Your task to perform on an android device: Is it going to rain tomorrow? Image 0: 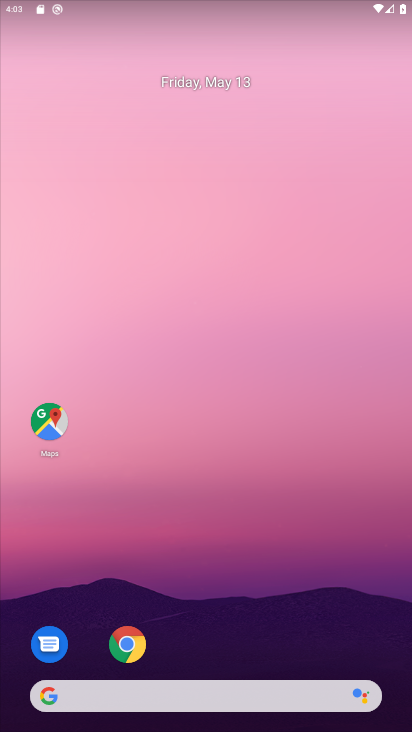
Step 0: drag from (241, 579) to (298, 63)
Your task to perform on an android device: Is it going to rain tomorrow? Image 1: 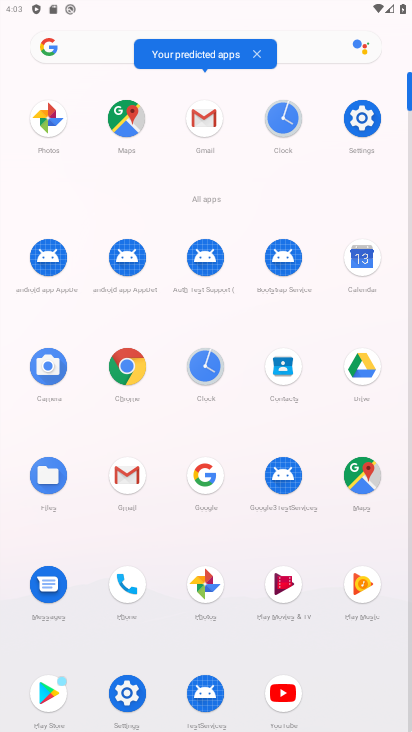
Step 1: click (64, 52)
Your task to perform on an android device: Is it going to rain tomorrow? Image 2: 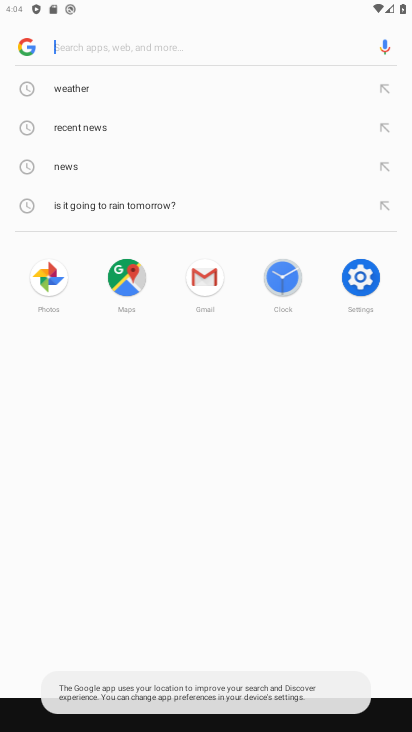
Step 2: click (70, 83)
Your task to perform on an android device: Is it going to rain tomorrow? Image 3: 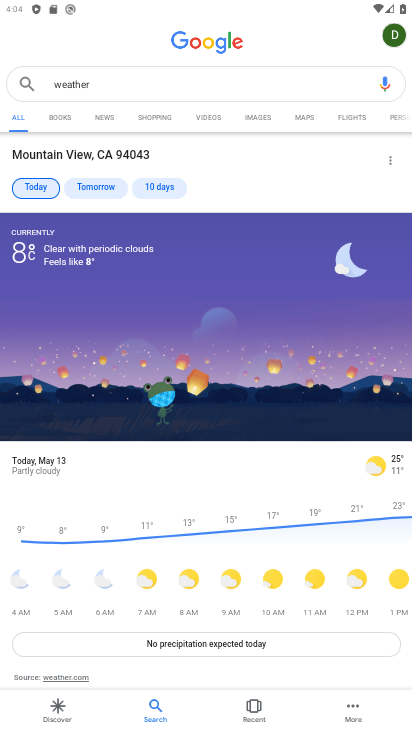
Step 3: click (88, 182)
Your task to perform on an android device: Is it going to rain tomorrow? Image 4: 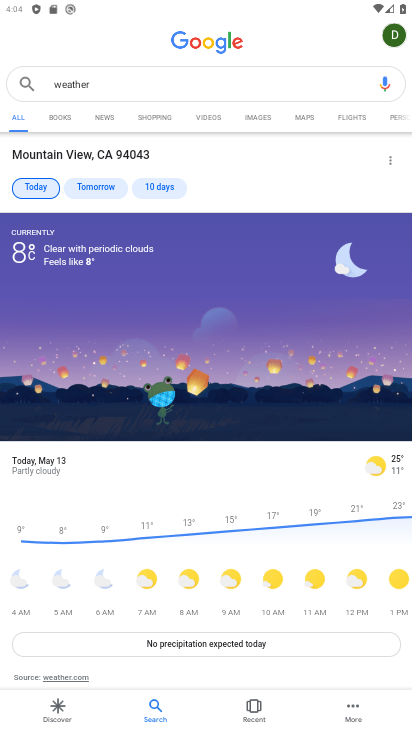
Step 4: click (94, 190)
Your task to perform on an android device: Is it going to rain tomorrow? Image 5: 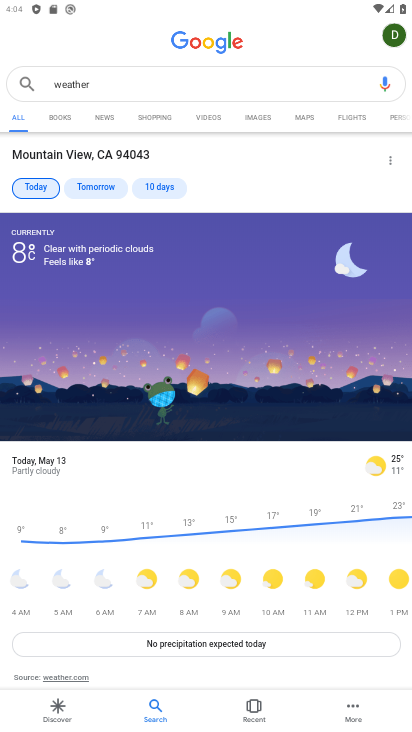
Step 5: click (94, 189)
Your task to perform on an android device: Is it going to rain tomorrow? Image 6: 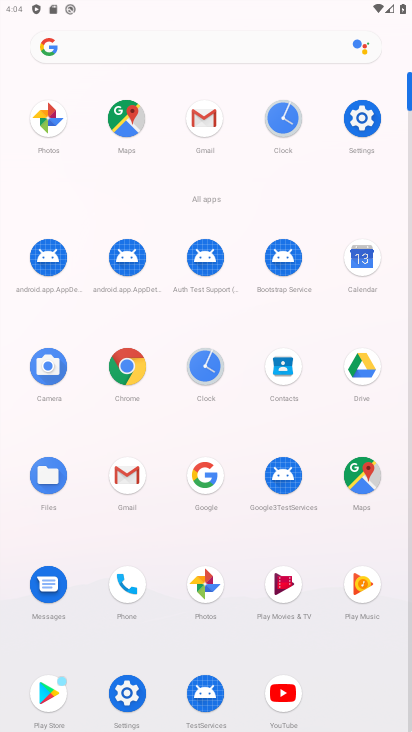
Step 6: click (168, 53)
Your task to perform on an android device: Is it going to rain tomorrow? Image 7: 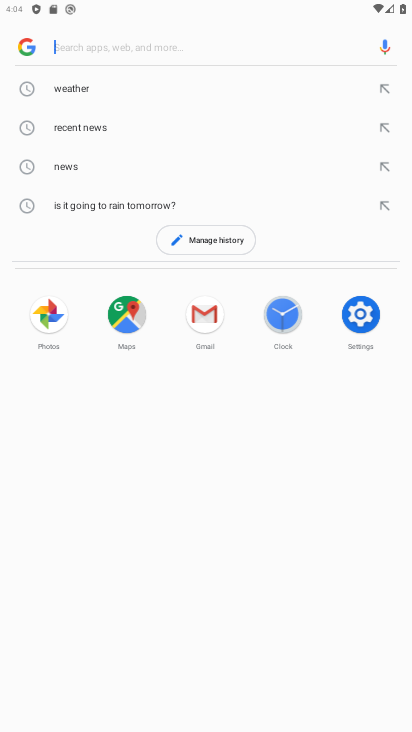
Step 7: click (78, 87)
Your task to perform on an android device: Is it going to rain tomorrow? Image 8: 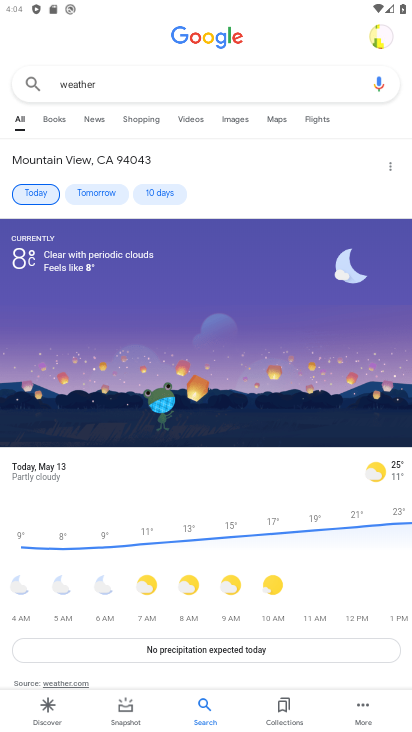
Step 8: click (107, 193)
Your task to perform on an android device: Is it going to rain tomorrow? Image 9: 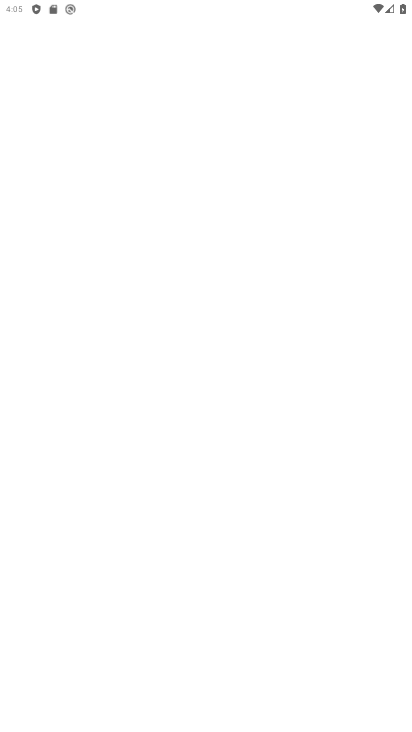
Step 9: click (109, 193)
Your task to perform on an android device: Is it going to rain tomorrow? Image 10: 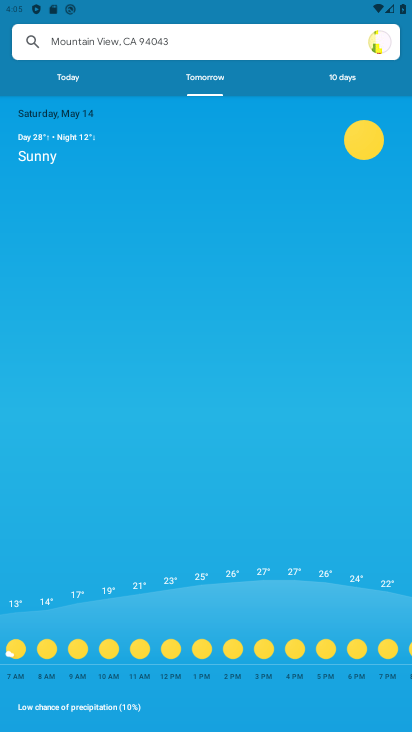
Step 10: task complete